Your task to perform on an android device: Show me productivity apps on the Play Store Image 0: 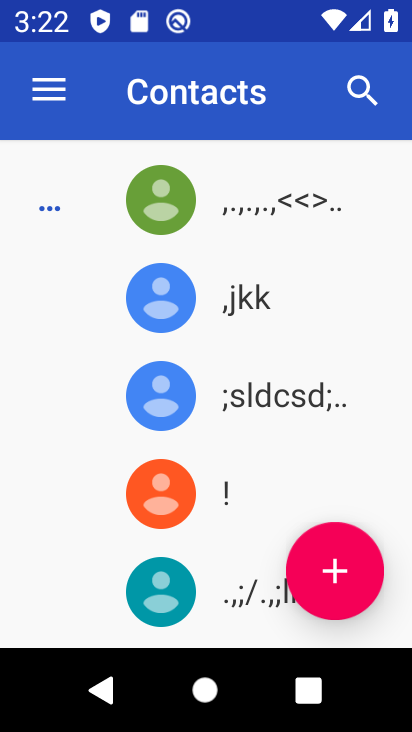
Step 0: press back button
Your task to perform on an android device: Show me productivity apps on the Play Store Image 1: 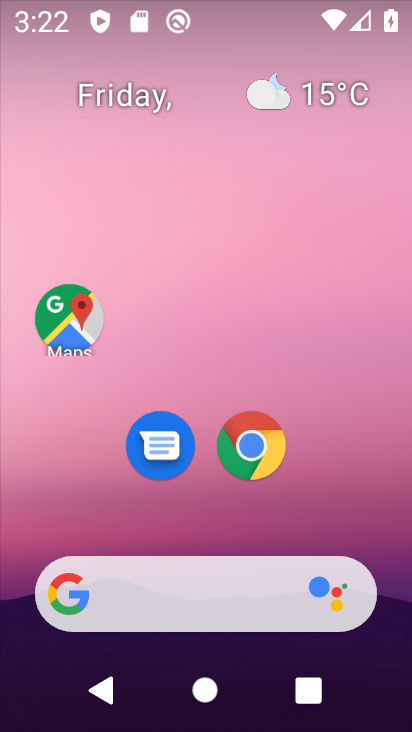
Step 1: drag from (119, 535) to (227, 44)
Your task to perform on an android device: Show me productivity apps on the Play Store Image 2: 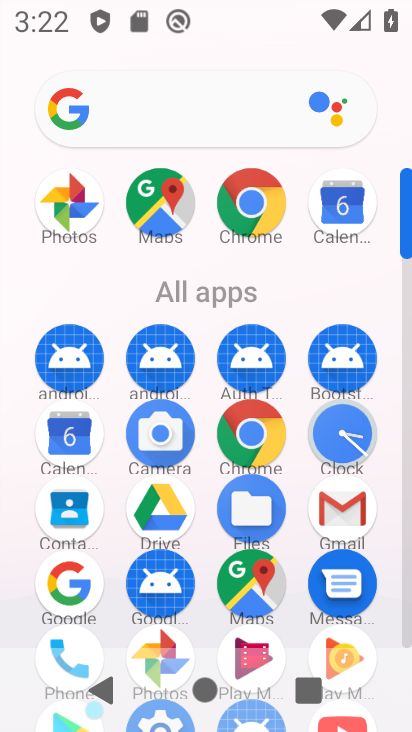
Step 2: drag from (108, 587) to (167, 328)
Your task to perform on an android device: Show me productivity apps on the Play Store Image 3: 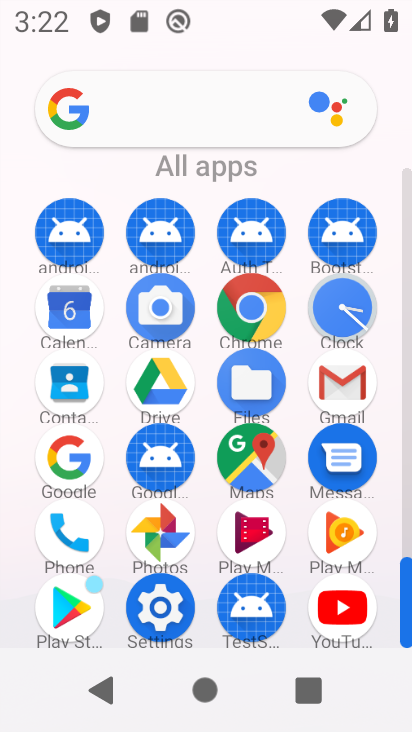
Step 3: click (75, 614)
Your task to perform on an android device: Show me productivity apps on the Play Store Image 4: 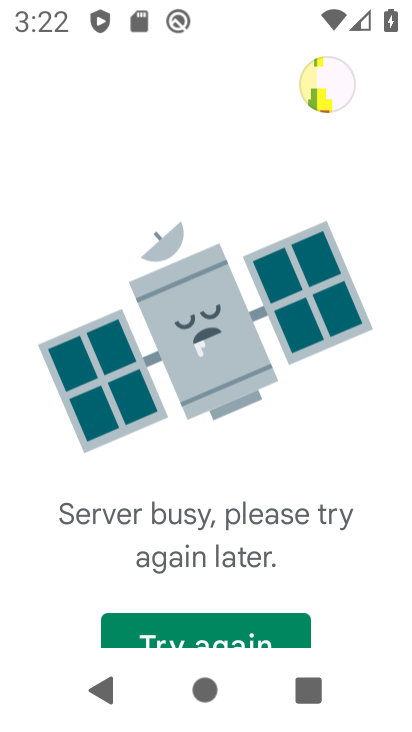
Step 4: task complete